Your task to perform on an android device: Search for hotels in Boston Image 0: 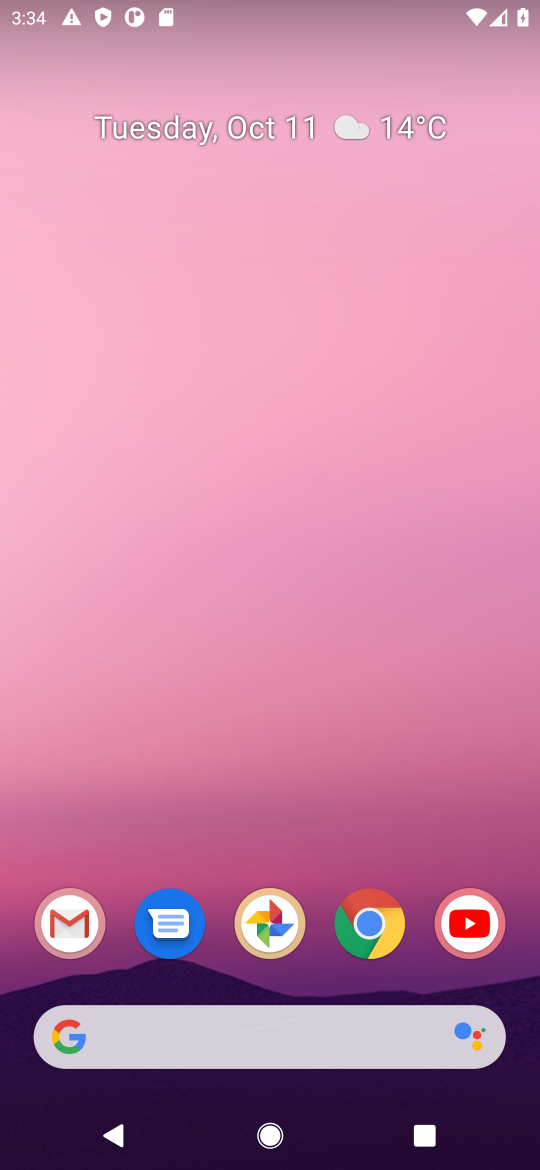
Step 0: drag from (264, 1002) to (372, 2)
Your task to perform on an android device: Search for hotels in Boston Image 1: 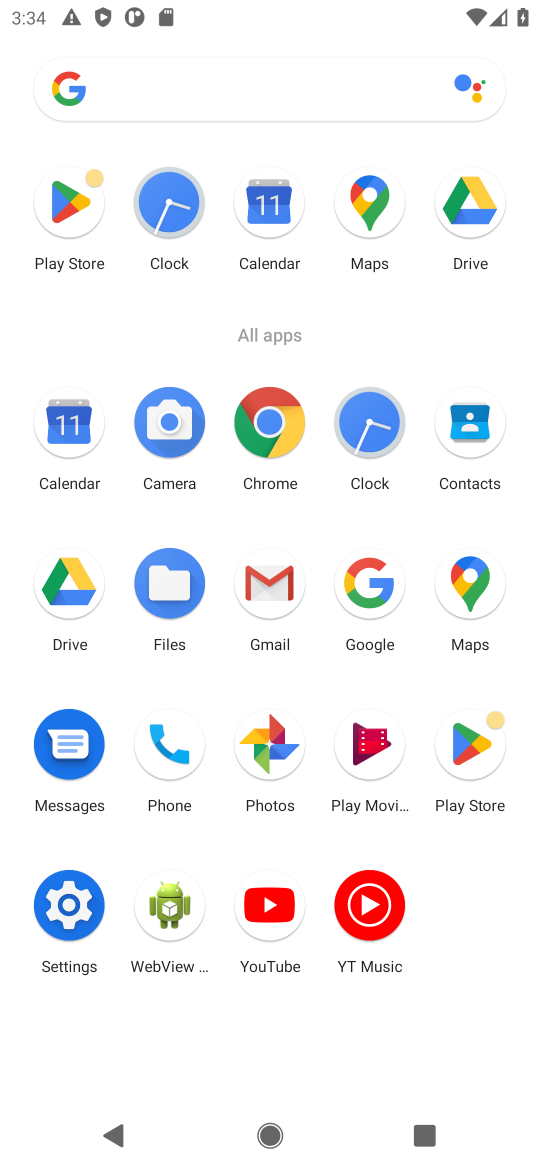
Step 1: click (368, 590)
Your task to perform on an android device: Search for hotels in Boston Image 2: 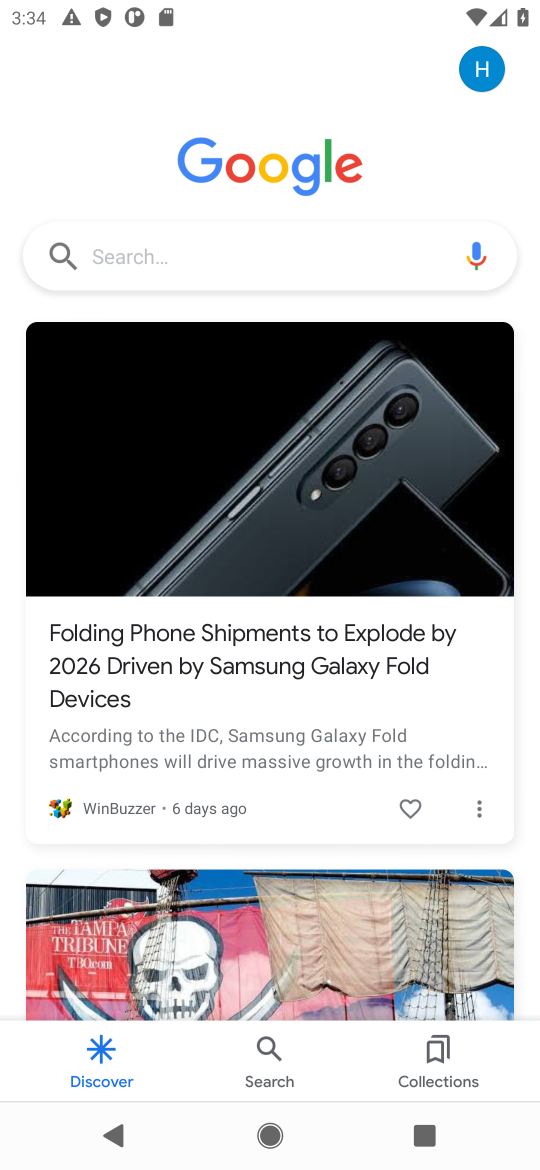
Step 2: click (224, 264)
Your task to perform on an android device: Search for hotels in Boston Image 3: 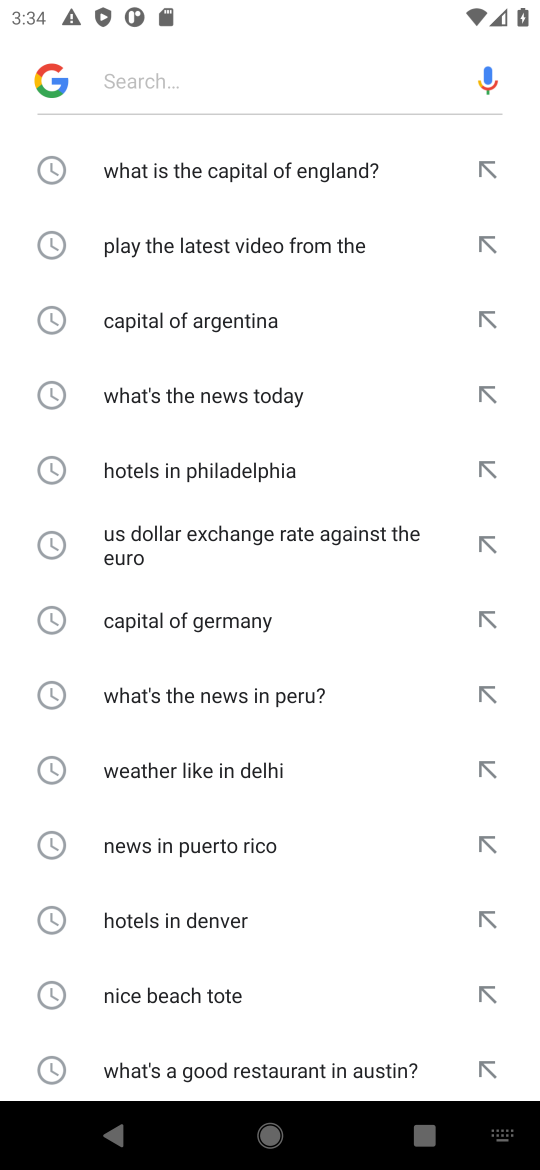
Step 3: type "hotels in Boston"
Your task to perform on an android device: Search for hotels in Boston Image 4: 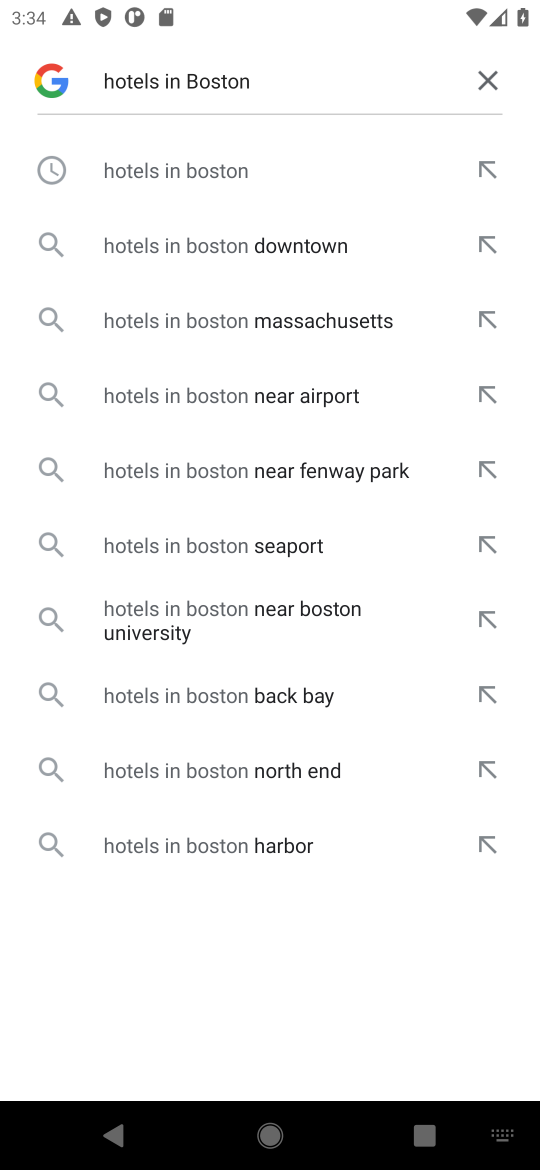
Step 4: type ""
Your task to perform on an android device: Search for hotels in Boston Image 5: 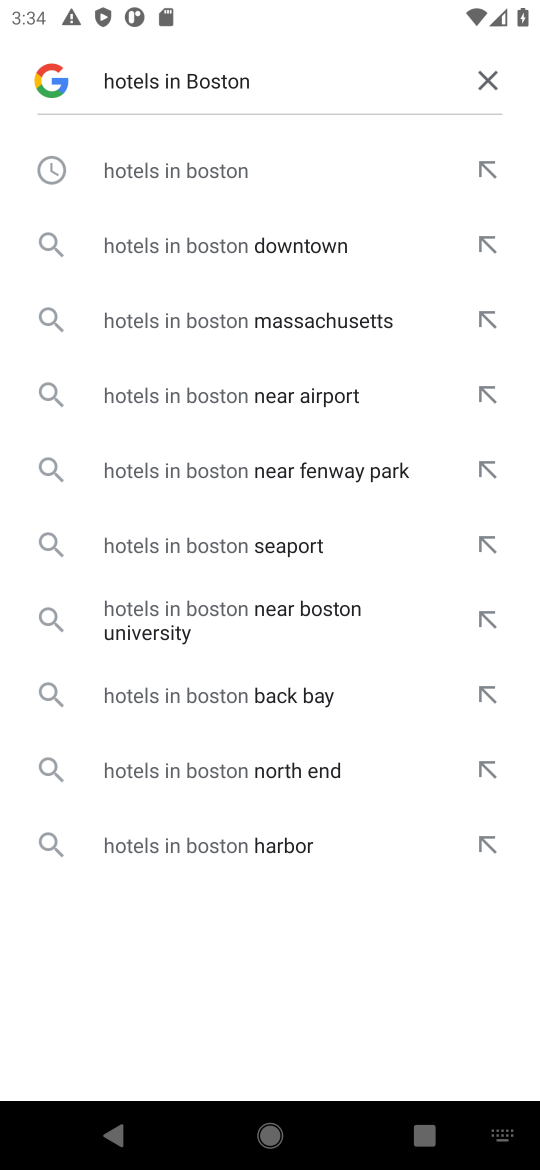
Step 5: click (181, 170)
Your task to perform on an android device: Search for hotels in Boston Image 6: 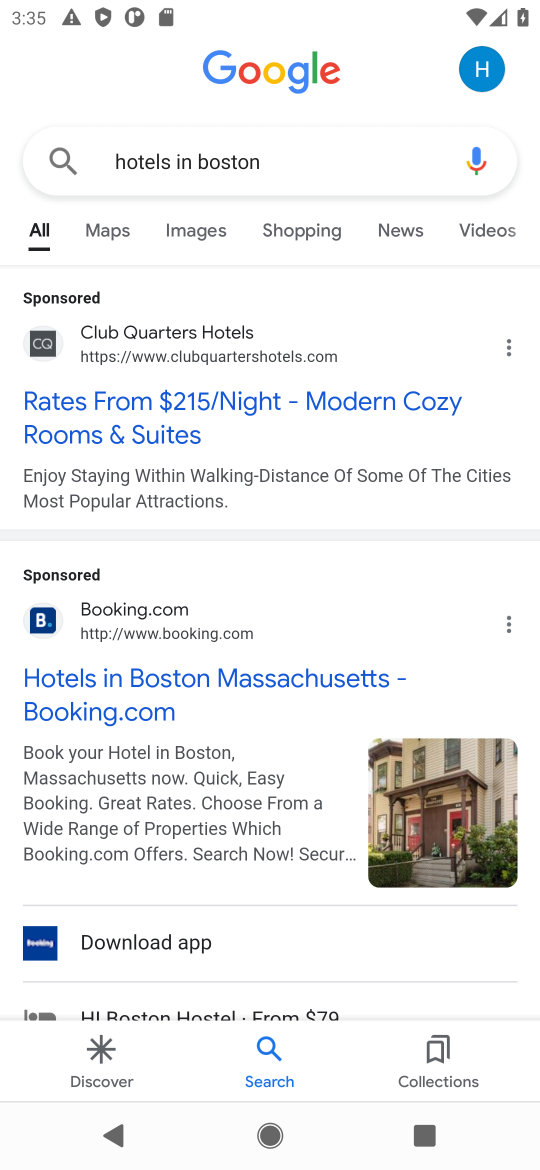
Step 6: click (114, 393)
Your task to perform on an android device: Search for hotels in Boston Image 7: 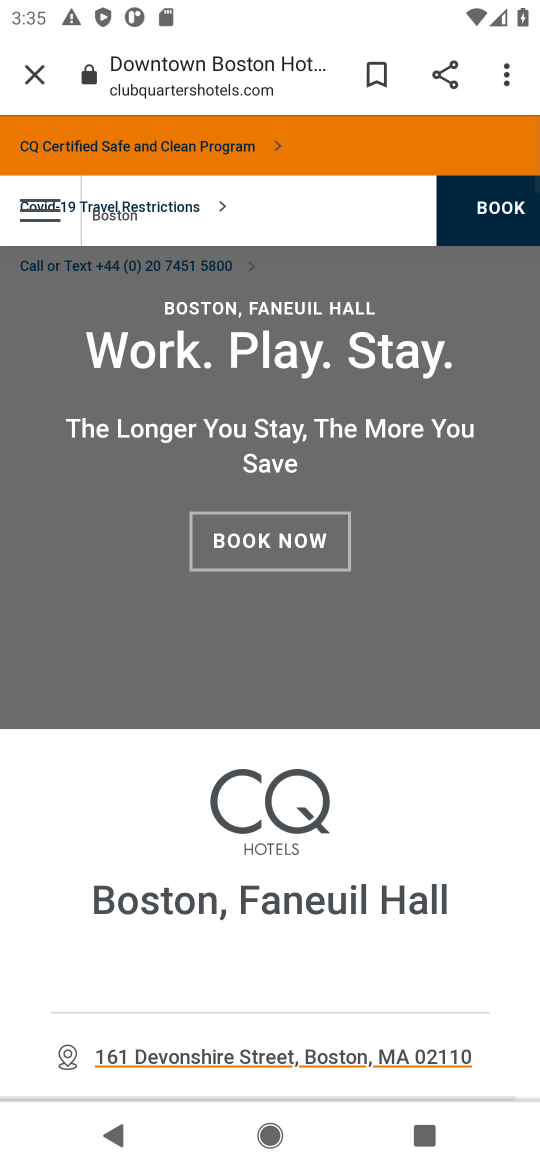
Step 7: task complete